Your task to perform on an android device: What's the weather? Image 0: 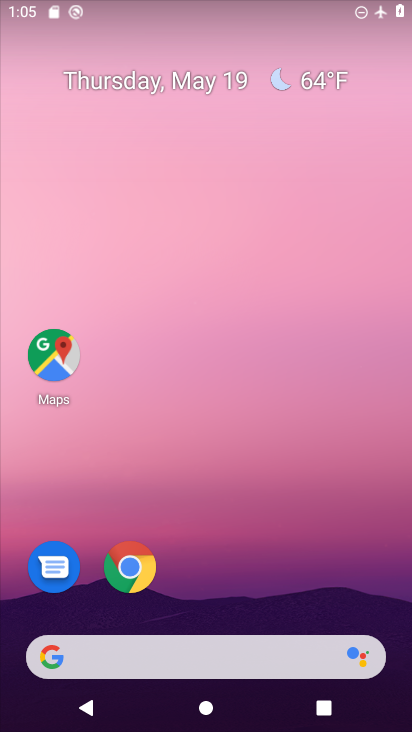
Step 0: drag from (258, 561) to (270, 184)
Your task to perform on an android device: What's the weather? Image 1: 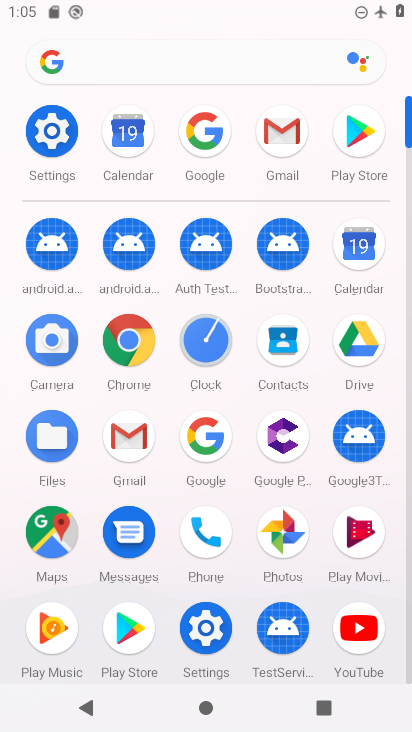
Step 1: click (199, 451)
Your task to perform on an android device: What's the weather? Image 2: 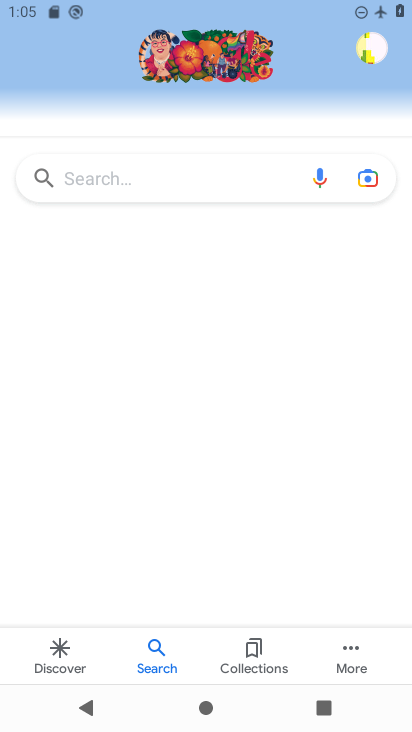
Step 2: click (186, 177)
Your task to perform on an android device: What's the weather? Image 3: 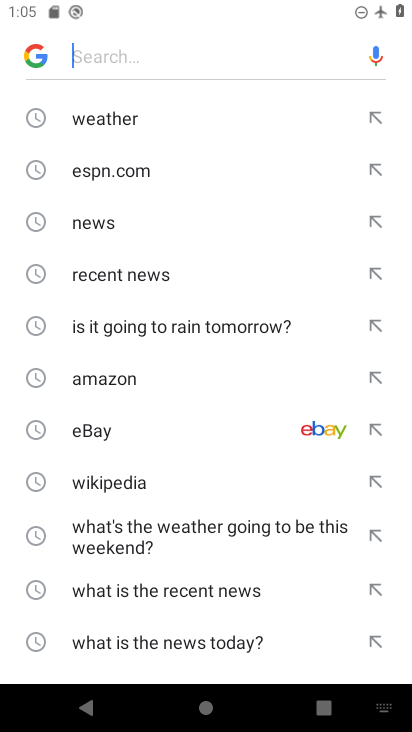
Step 3: click (99, 125)
Your task to perform on an android device: What's the weather? Image 4: 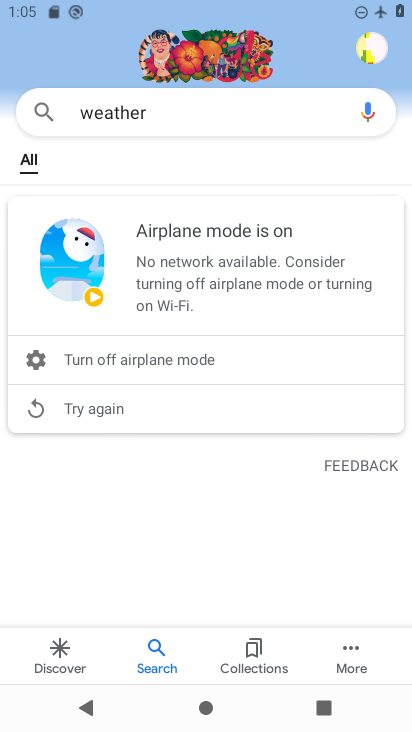
Step 4: task complete